Your task to perform on an android device: set an alarm Image 0: 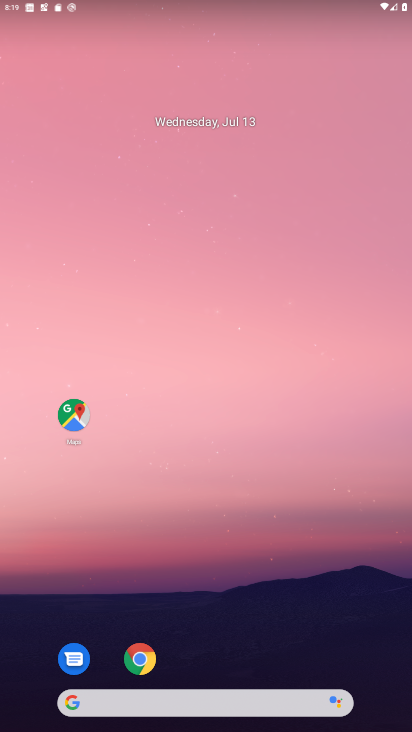
Step 0: drag from (272, 591) to (199, 173)
Your task to perform on an android device: set an alarm Image 1: 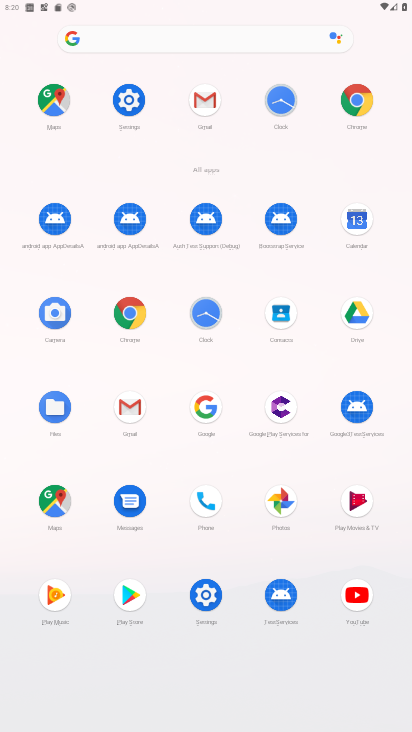
Step 1: click (200, 311)
Your task to perform on an android device: set an alarm Image 2: 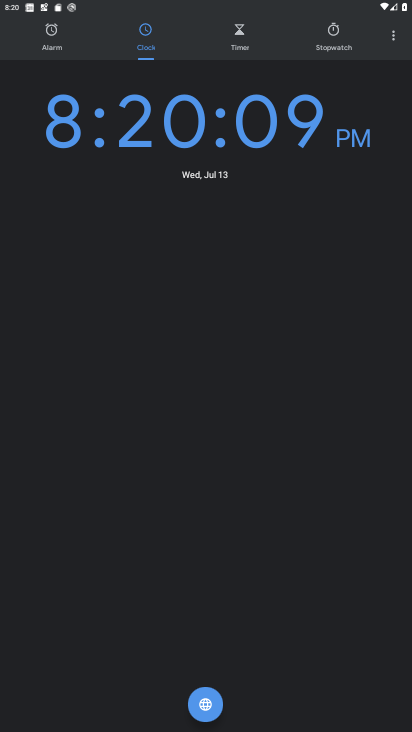
Step 2: click (49, 27)
Your task to perform on an android device: set an alarm Image 3: 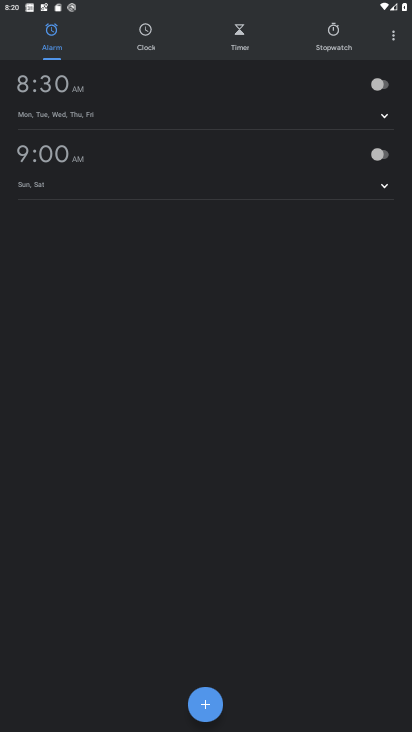
Step 3: click (207, 705)
Your task to perform on an android device: set an alarm Image 4: 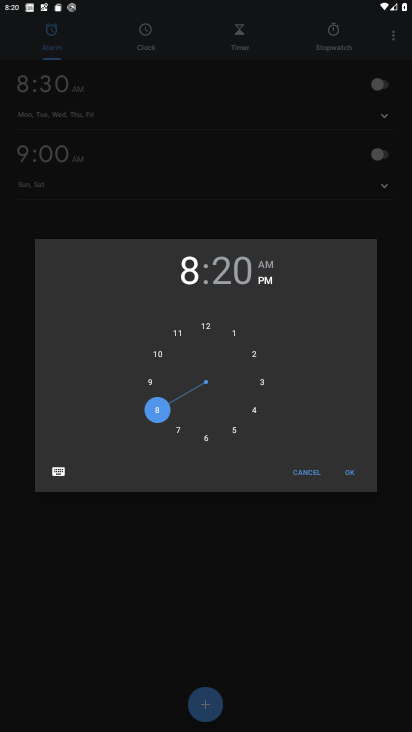
Step 4: click (349, 471)
Your task to perform on an android device: set an alarm Image 5: 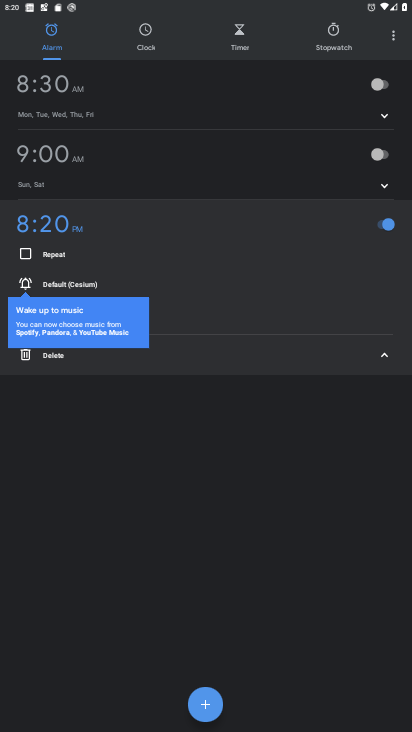
Step 5: task complete